Your task to perform on an android device: Open Chrome and go to the settings page Image 0: 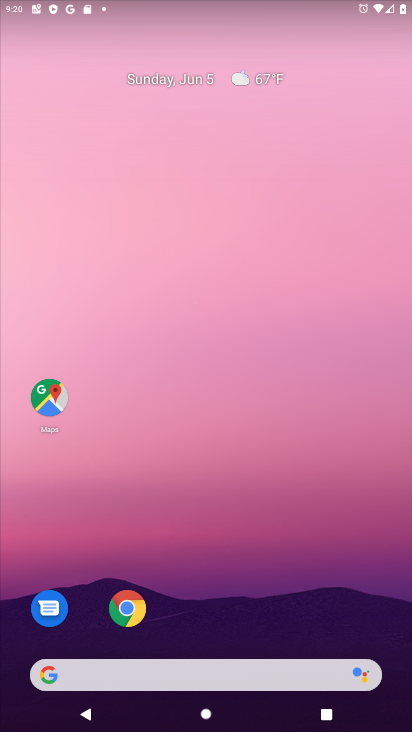
Step 0: click (128, 617)
Your task to perform on an android device: Open Chrome and go to the settings page Image 1: 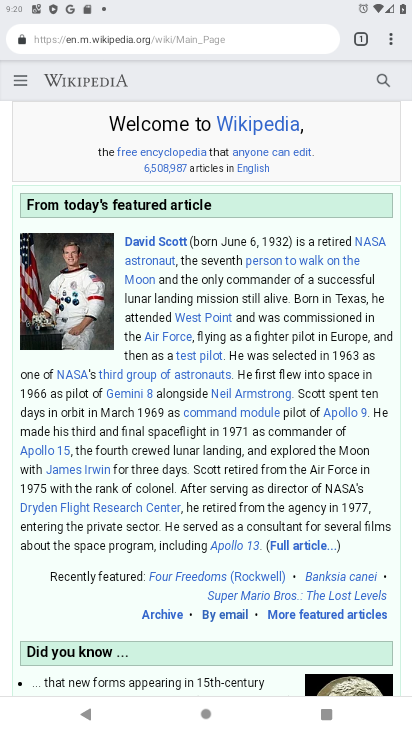
Step 1: click (389, 35)
Your task to perform on an android device: Open Chrome and go to the settings page Image 2: 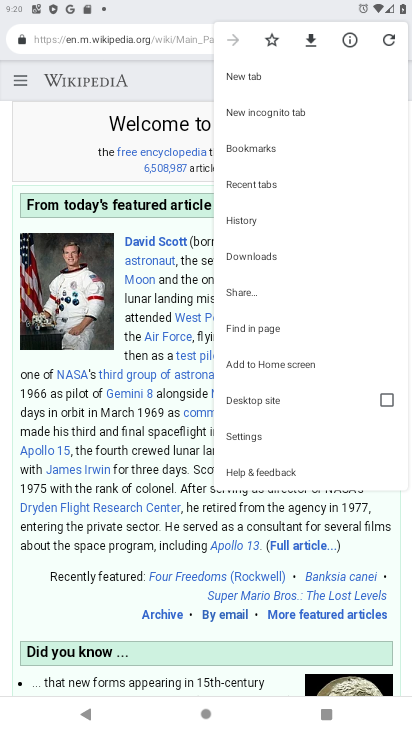
Step 2: click (262, 429)
Your task to perform on an android device: Open Chrome and go to the settings page Image 3: 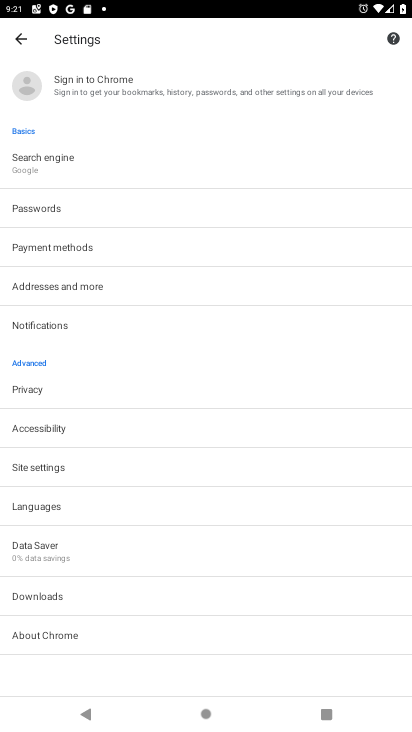
Step 3: task complete